Your task to perform on an android device: Is it going to rain this weekend? Image 0: 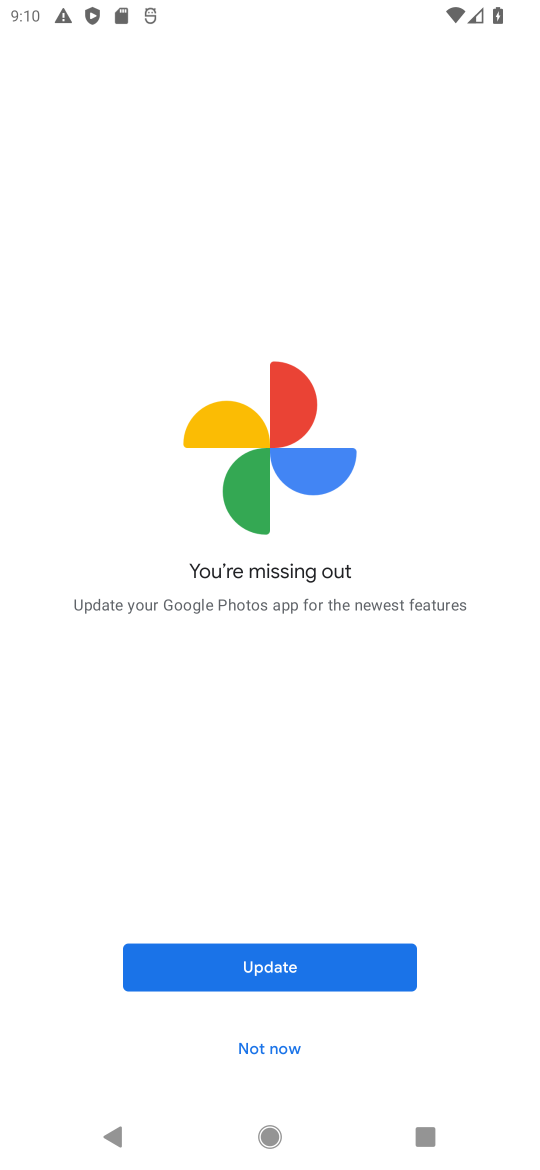
Step 0: press home button
Your task to perform on an android device: Is it going to rain this weekend? Image 1: 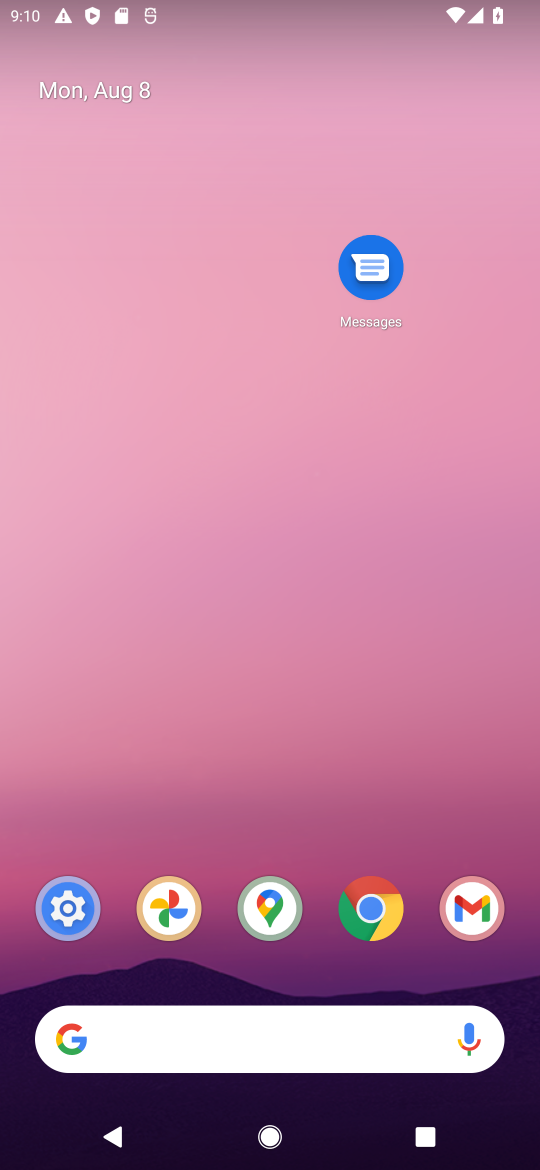
Step 1: click (168, 1042)
Your task to perform on an android device: Is it going to rain this weekend? Image 2: 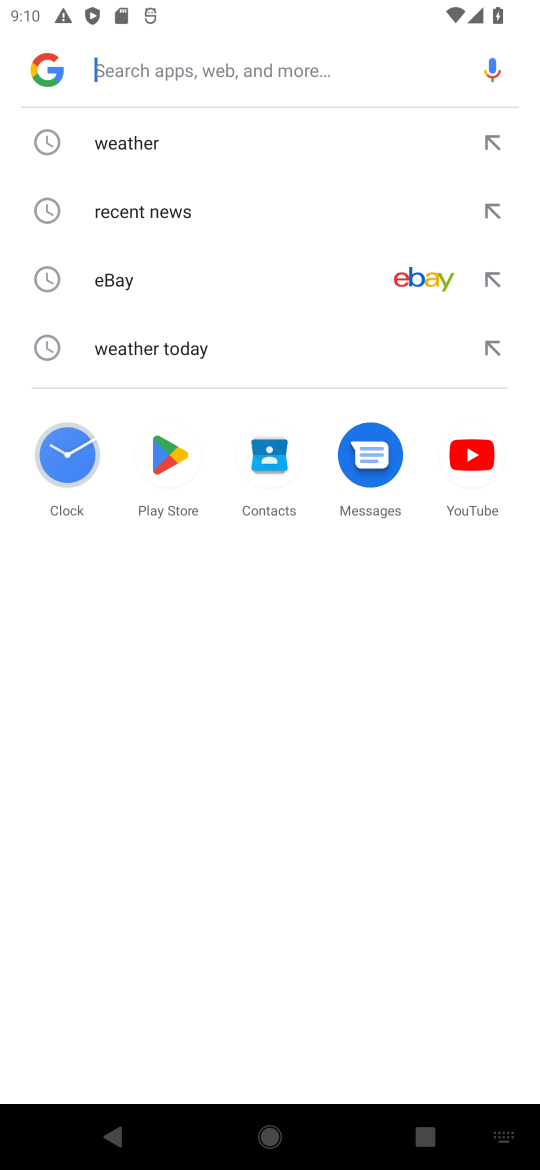
Step 2: click (118, 157)
Your task to perform on an android device: Is it going to rain this weekend? Image 3: 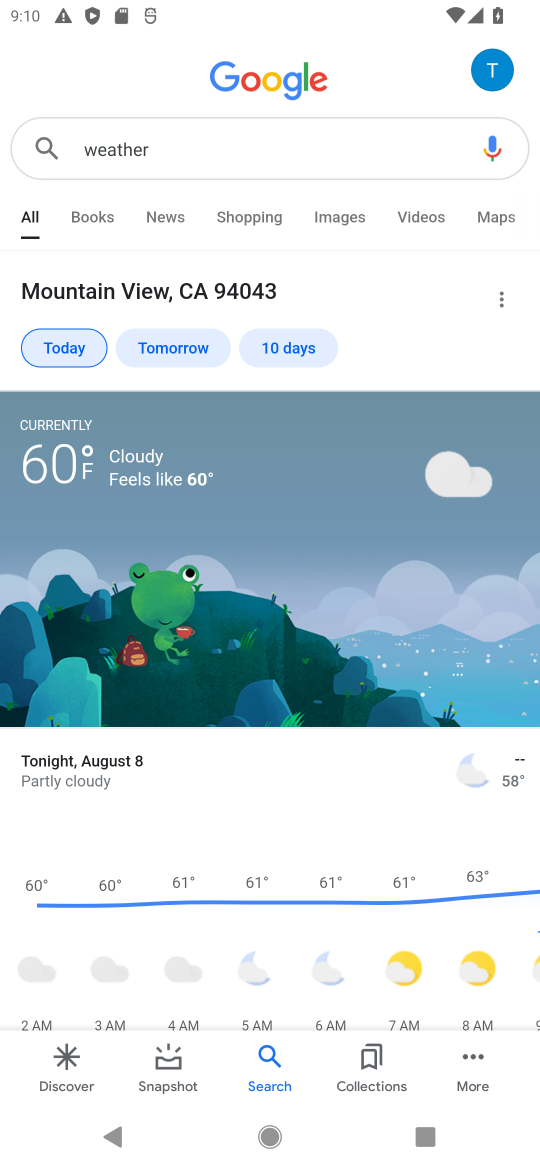
Step 3: click (284, 354)
Your task to perform on an android device: Is it going to rain this weekend? Image 4: 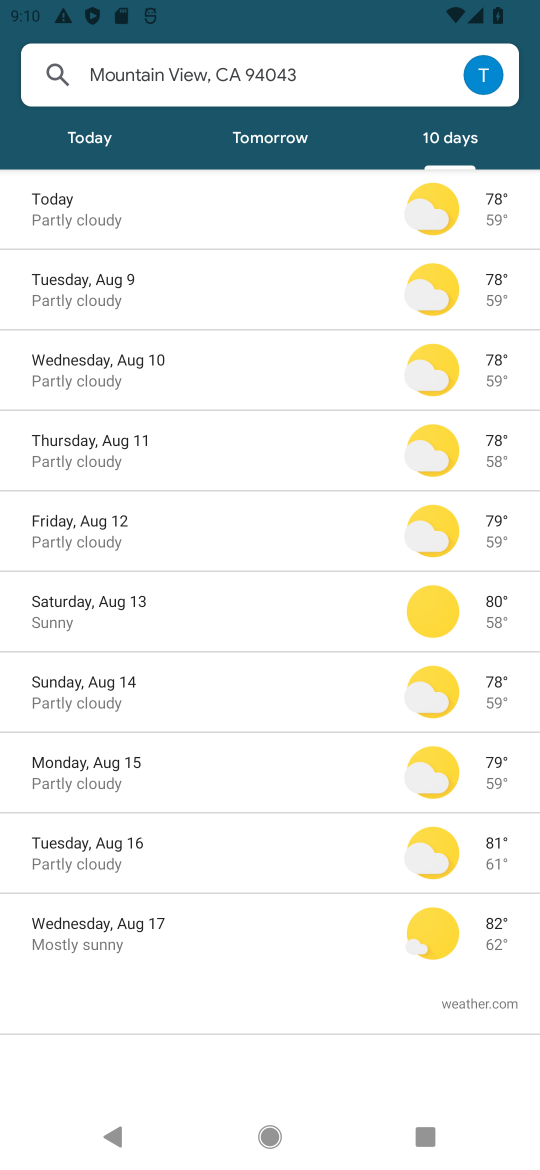
Step 4: task complete